Your task to perform on an android device: turn pop-ups on in chrome Image 0: 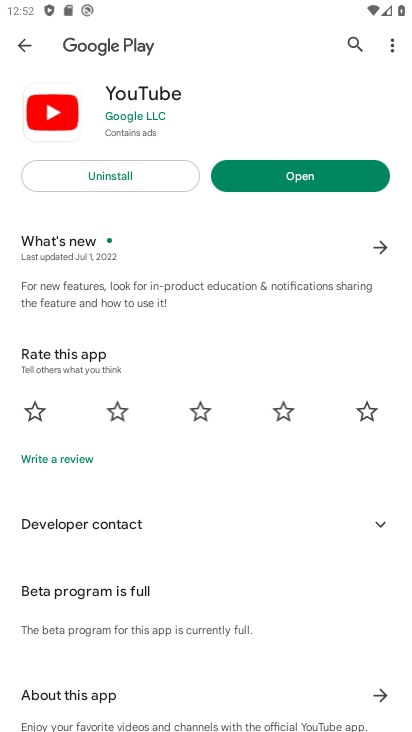
Step 0: press home button
Your task to perform on an android device: turn pop-ups on in chrome Image 1: 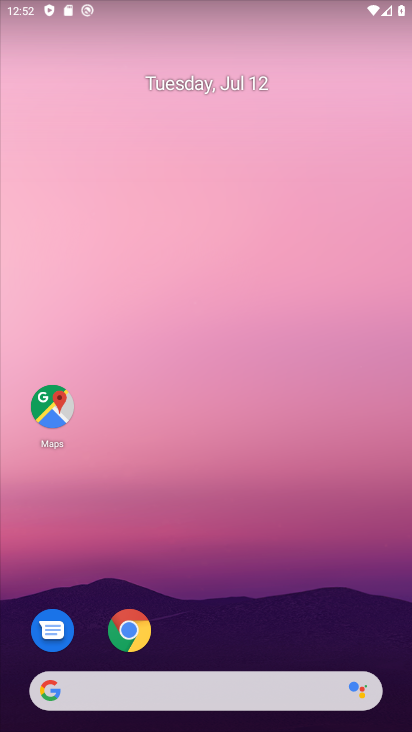
Step 1: click (129, 632)
Your task to perform on an android device: turn pop-ups on in chrome Image 2: 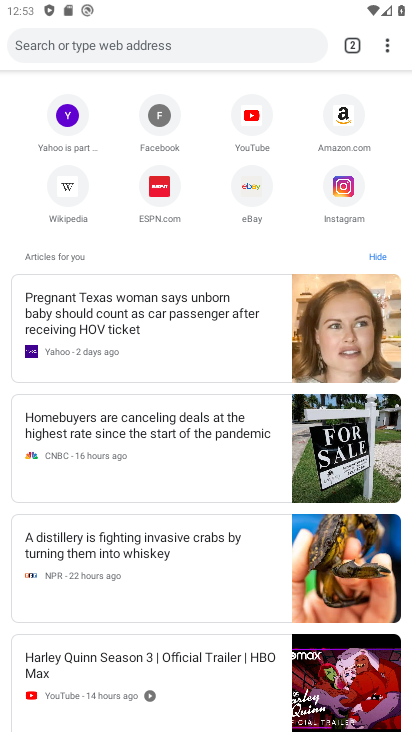
Step 2: click (382, 51)
Your task to perform on an android device: turn pop-ups on in chrome Image 3: 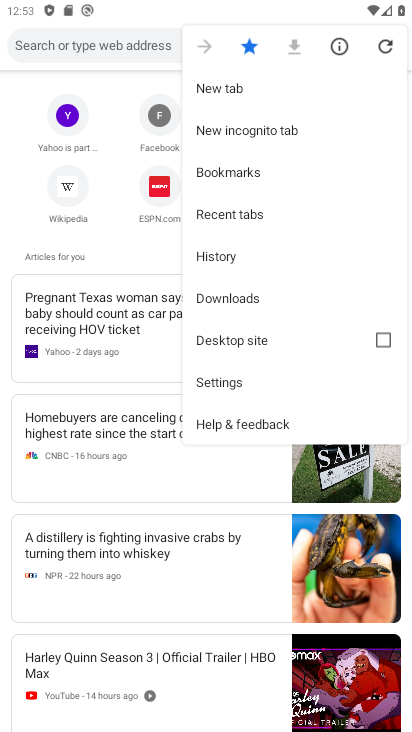
Step 3: click (219, 390)
Your task to perform on an android device: turn pop-ups on in chrome Image 4: 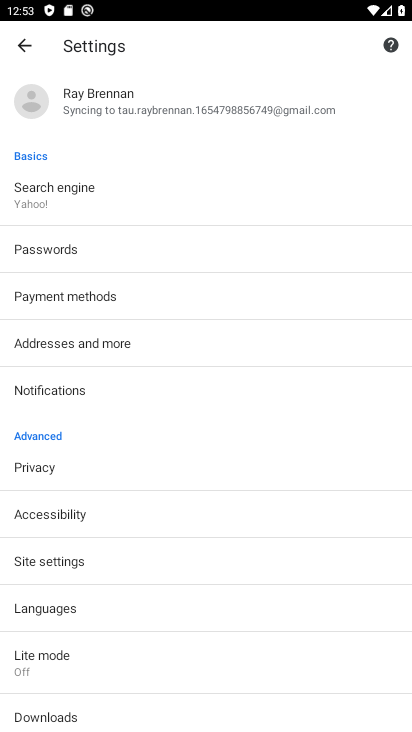
Step 4: click (45, 561)
Your task to perform on an android device: turn pop-ups on in chrome Image 5: 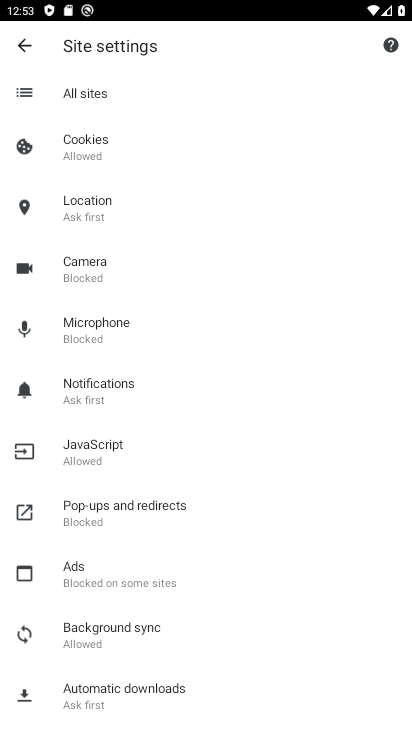
Step 5: click (84, 516)
Your task to perform on an android device: turn pop-ups on in chrome Image 6: 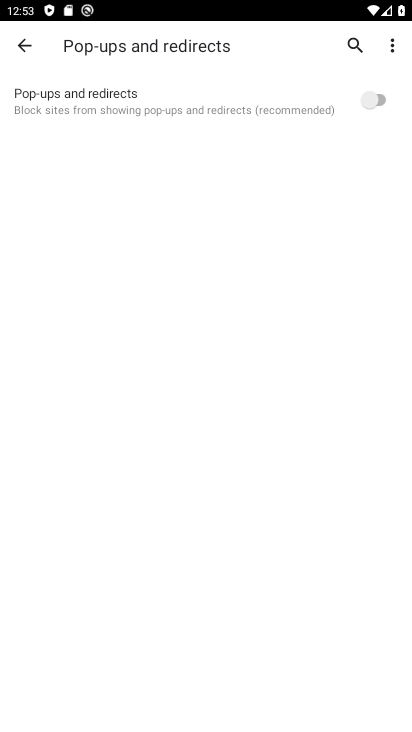
Step 6: click (381, 100)
Your task to perform on an android device: turn pop-ups on in chrome Image 7: 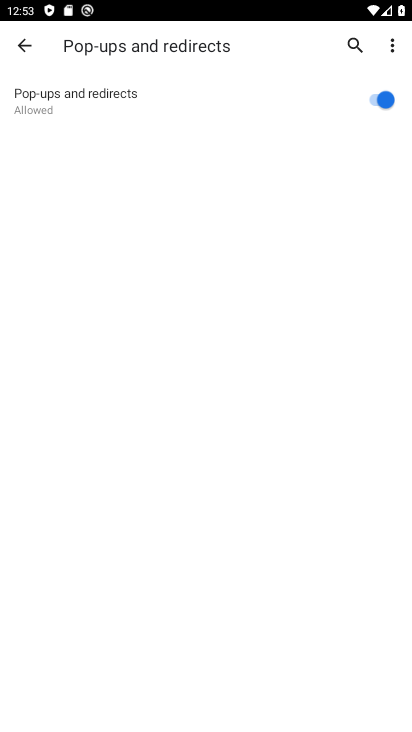
Step 7: task complete